Your task to perform on an android device: turn on data saver in the chrome app Image 0: 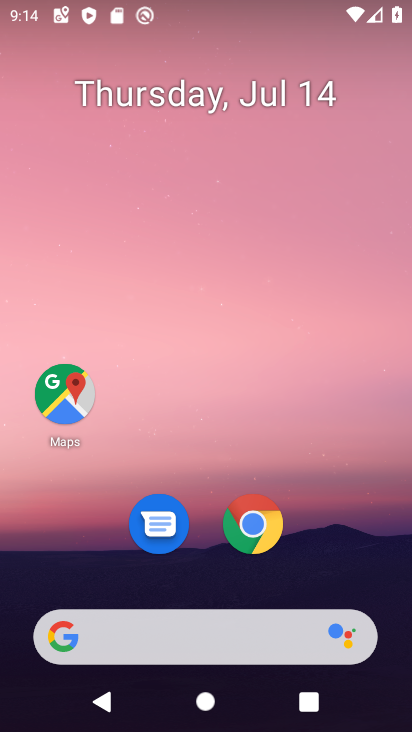
Step 0: click (265, 525)
Your task to perform on an android device: turn on data saver in the chrome app Image 1: 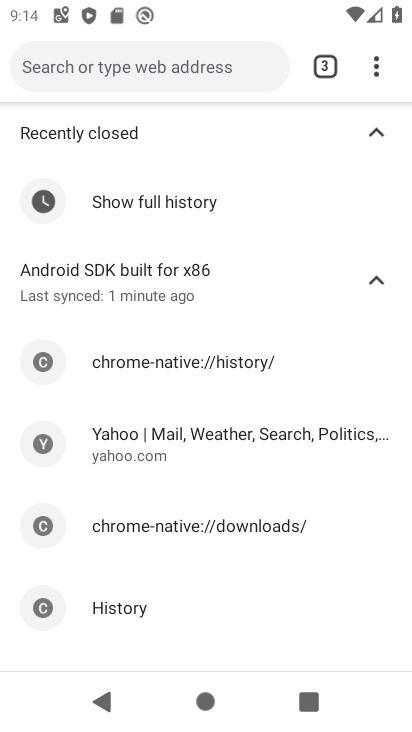
Step 1: click (379, 79)
Your task to perform on an android device: turn on data saver in the chrome app Image 2: 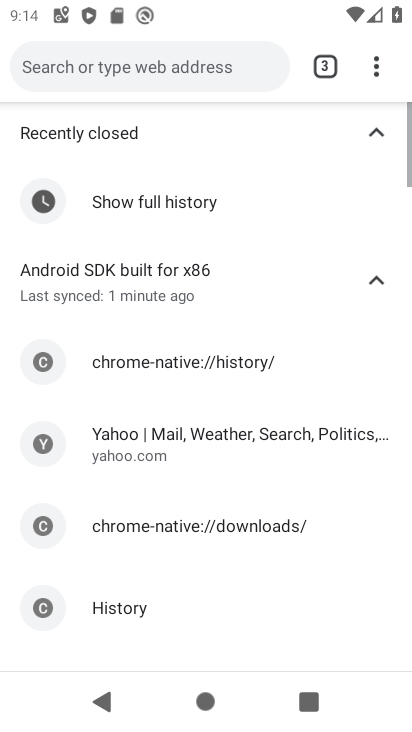
Step 2: click (375, 65)
Your task to perform on an android device: turn on data saver in the chrome app Image 3: 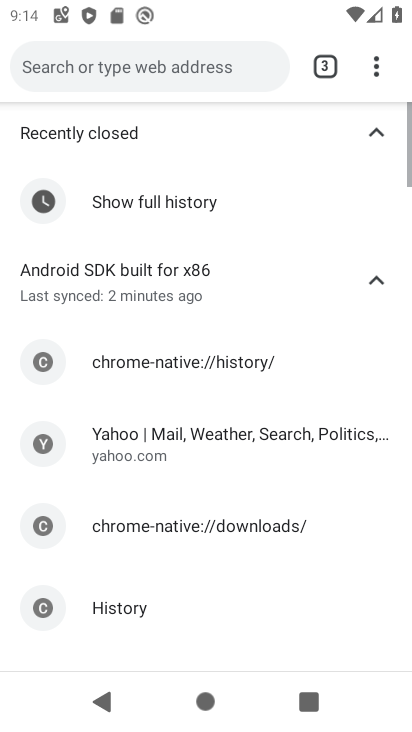
Step 3: click (375, 68)
Your task to perform on an android device: turn on data saver in the chrome app Image 4: 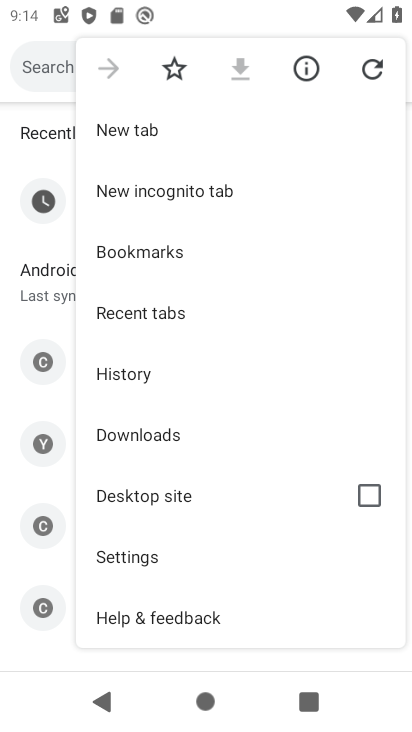
Step 4: click (153, 559)
Your task to perform on an android device: turn on data saver in the chrome app Image 5: 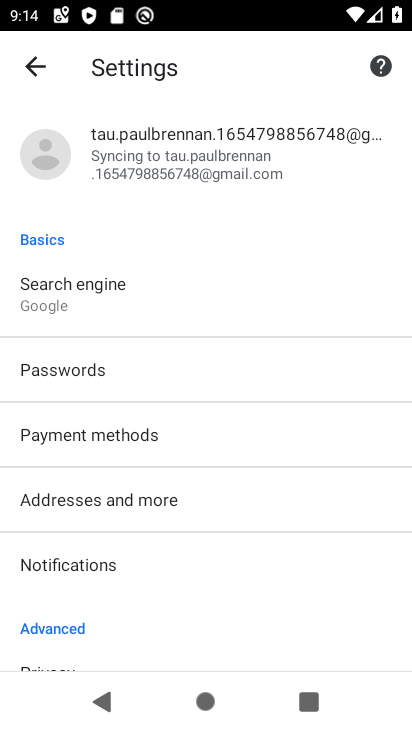
Step 5: drag from (235, 584) to (305, 127)
Your task to perform on an android device: turn on data saver in the chrome app Image 6: 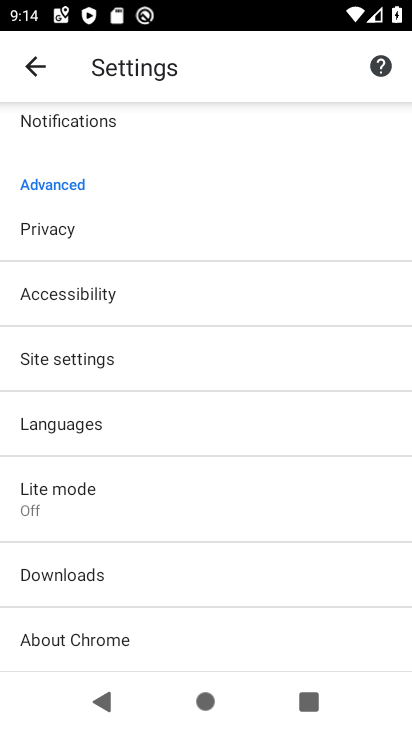
Step 6: click (139, 511)
Your task to perform on an android device: turn on data saver in the chrome app Image 7: 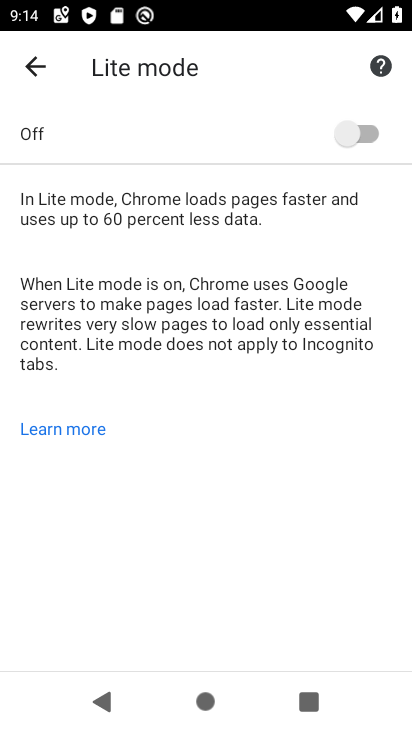
Step 7: click (361, 124)
Your task to perform on an android device: turn on data saver in the chrome app Image 8: 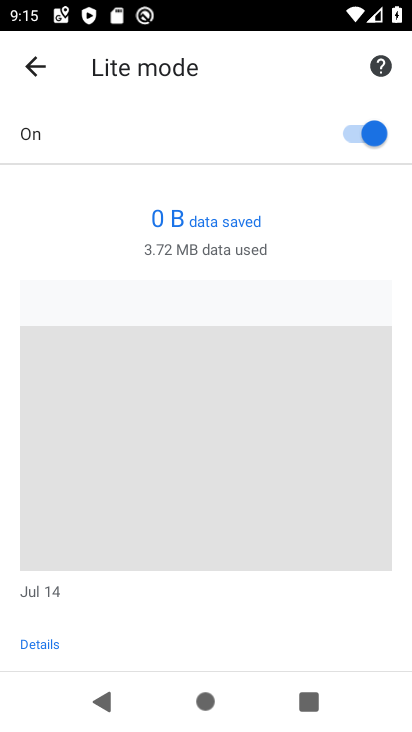
Step 8: task complete